Your task to perform on an android device: set default search engine in the chrome app Image 0: 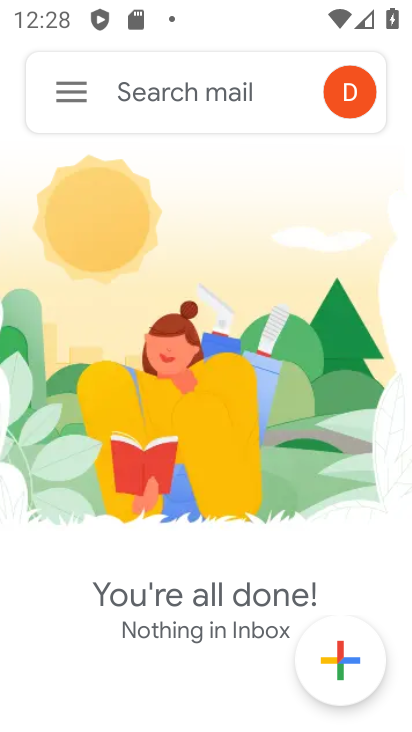
Step 0: press home button
Your task to perform on an android device: set default search engine in the chrome app Image 1: 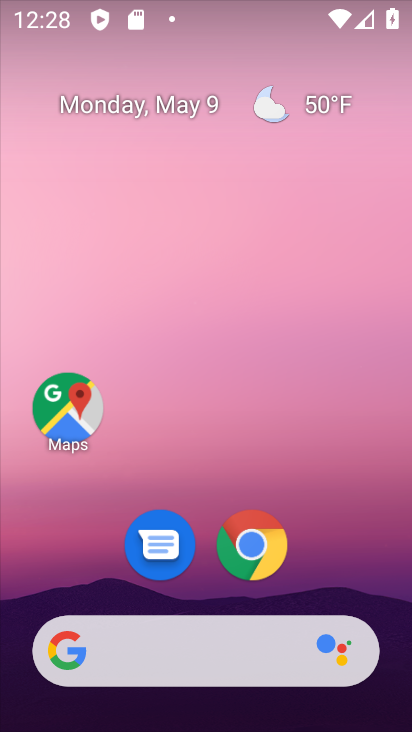
Step 1: click (246, 539)
Your task to perform on an android device: set default search engine in the chrome app Image 2: 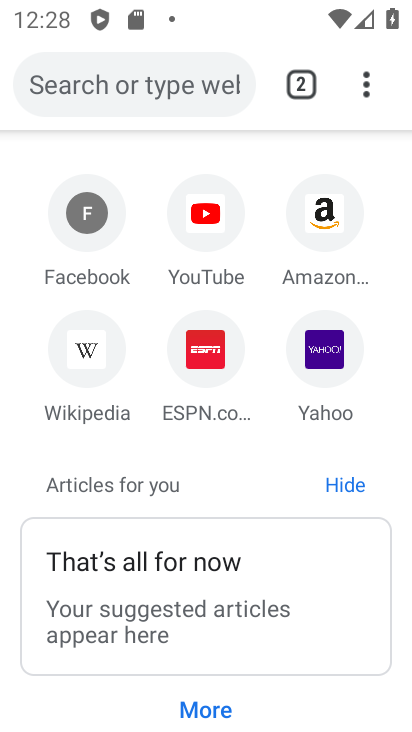
Step 2: drag from (359, 62) to (118, 606)
Your task to perform on an android device: set default search engine in the chrome app Image 3: 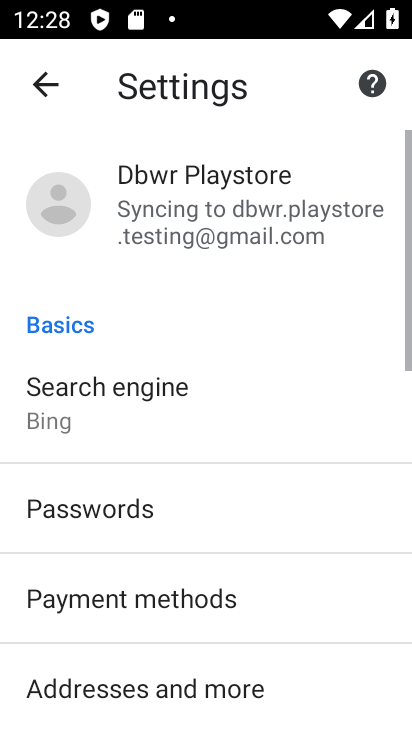
Step 3: click (88, 420)
Your task to perform on an android device: set default search engine in the chrome app Image 4: 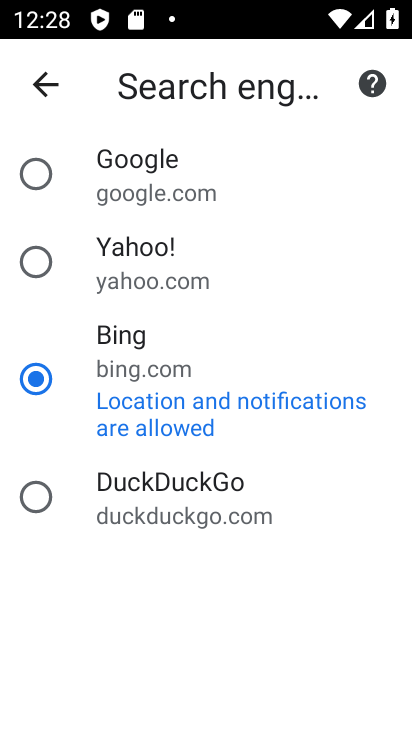
Step 4: click (32, 167)
Your task to perform on an android device: set default search engine in the chrome app Image 5: 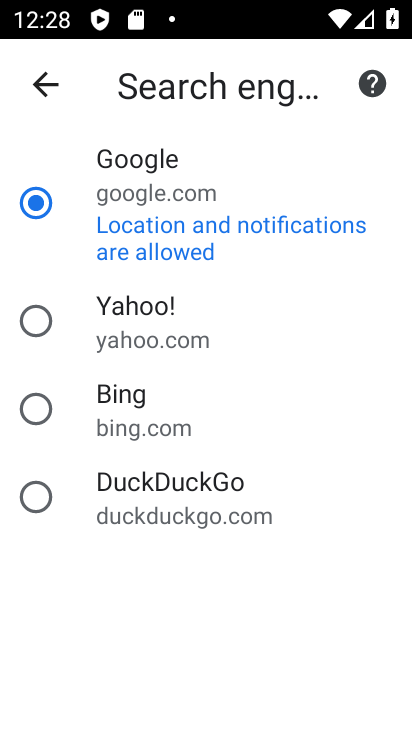
Step 5: task complete